Your task to perform on an android device: Open settings Image 0: 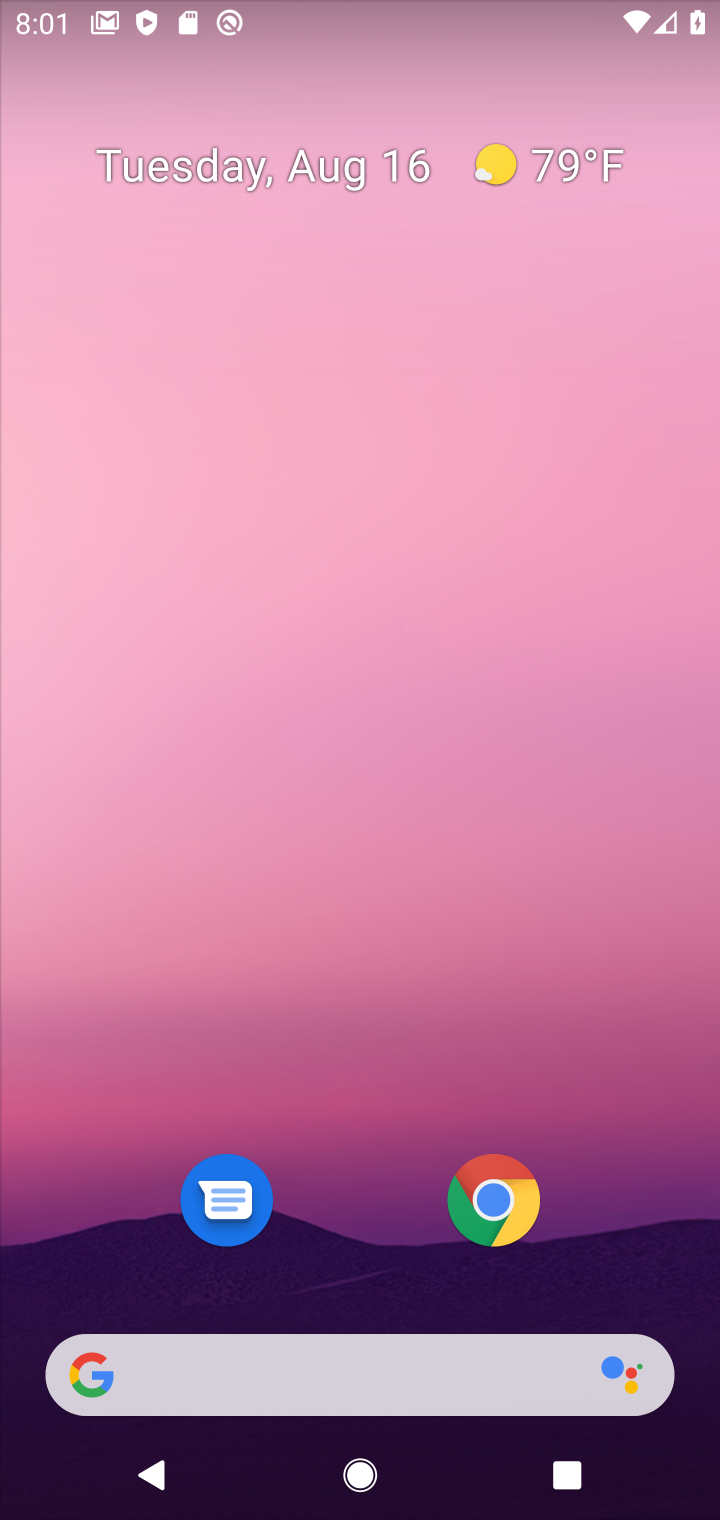
Step 0: drag from (646, 1183) to (597, 388)
Your task to perform on an android device: Open settings Image 1: 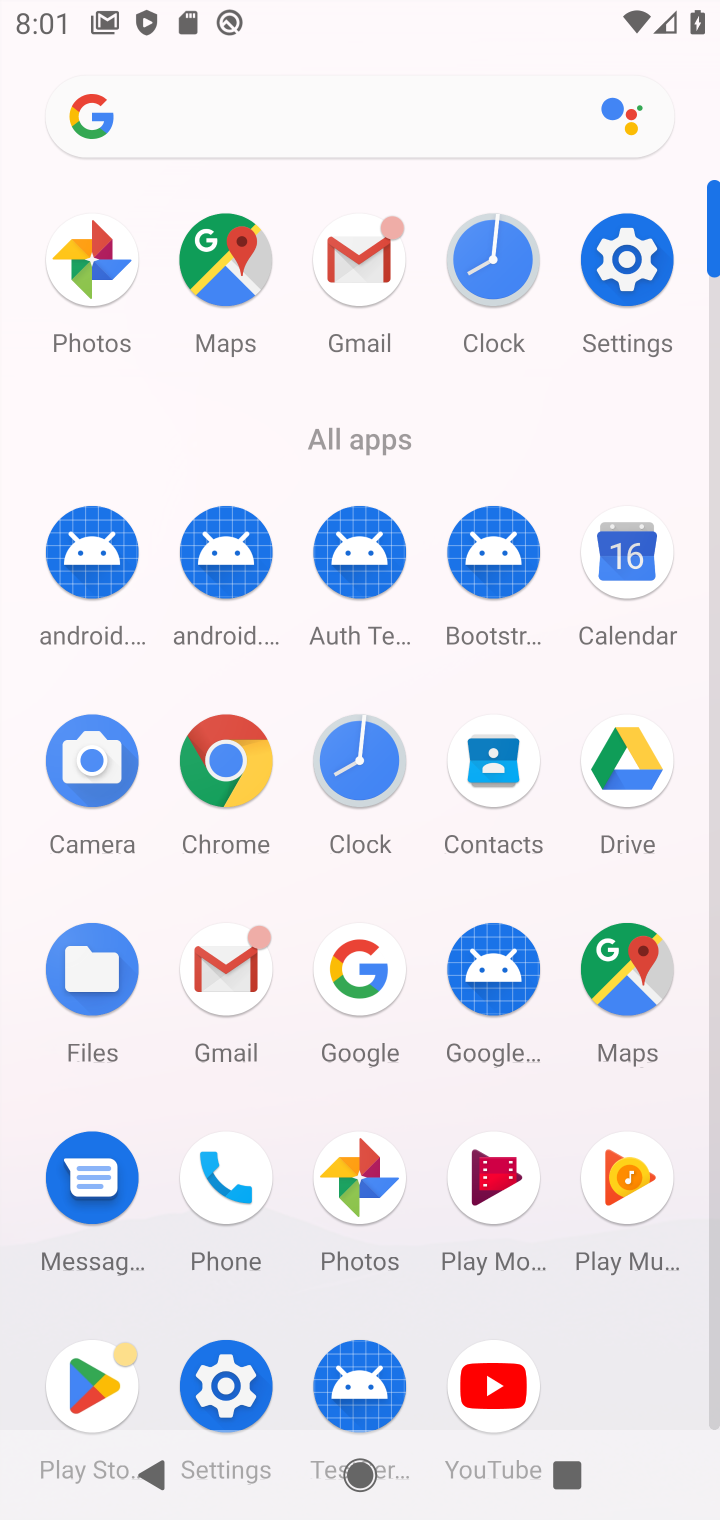
Step 1: click (227, 1390)
Your task to perform on an android device: Open settings Image 2: 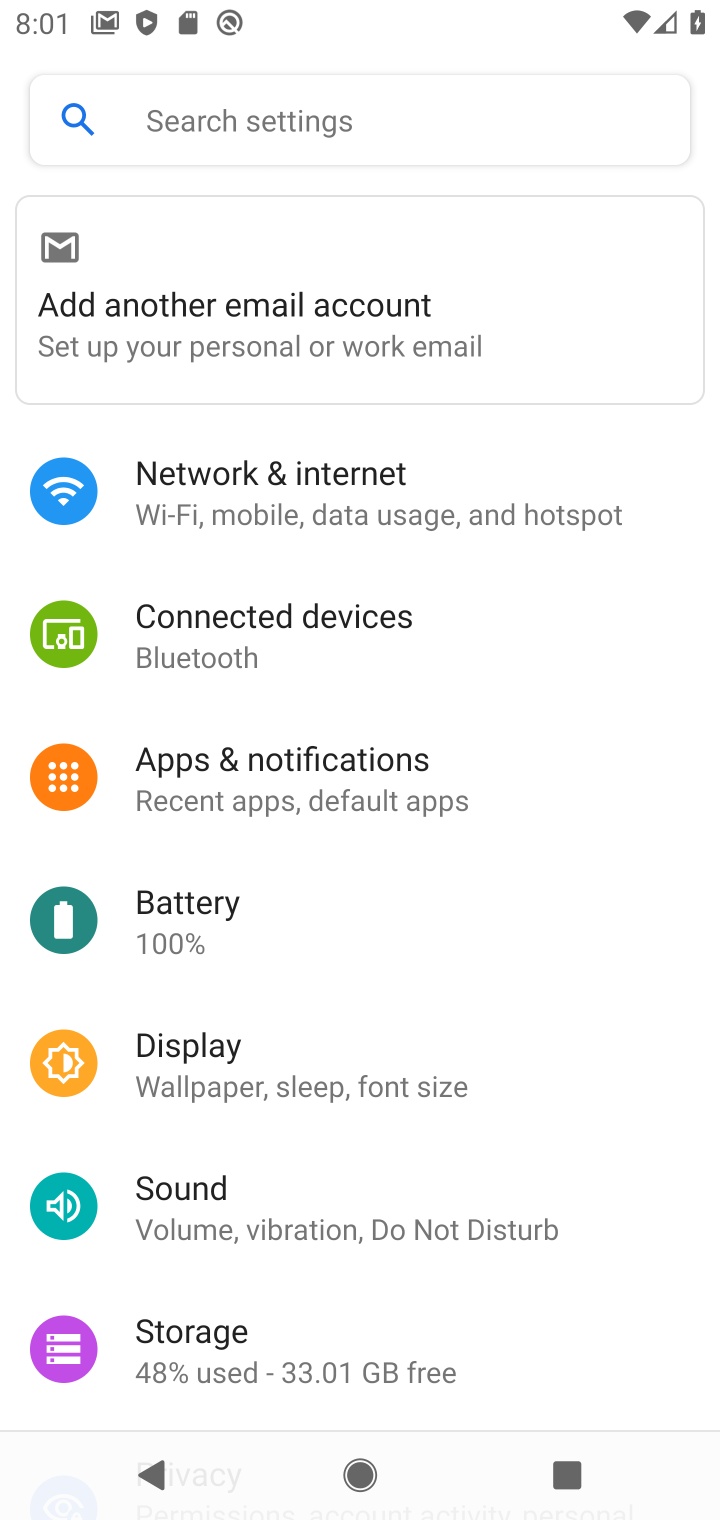
Step 2: task complete